Your task to perform on an android device: See recent photos Image 0: 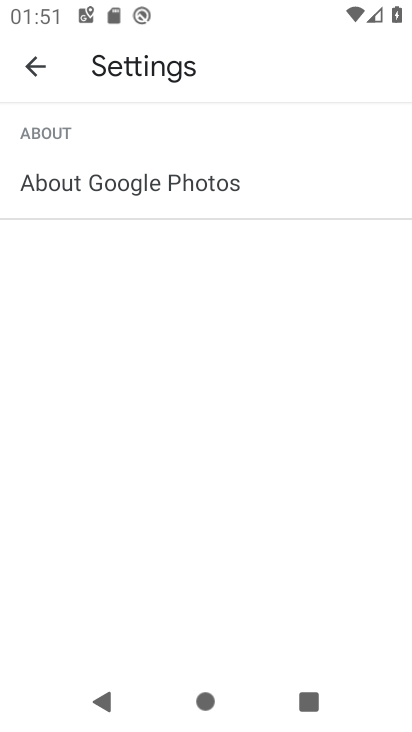
Step 0: press home button
Your task to perform on an android device: See recent photos Image 1: 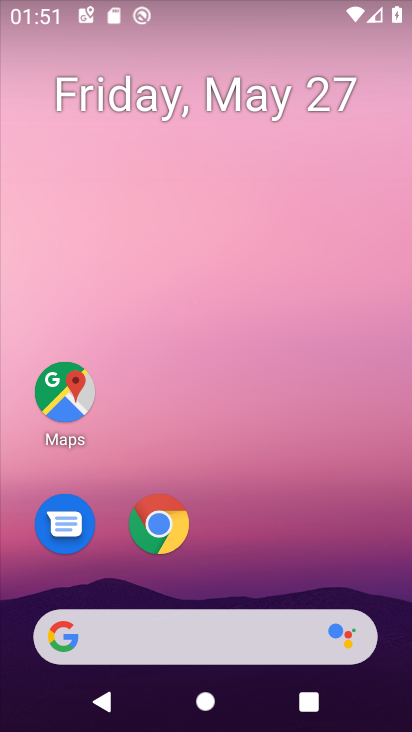
Step 1: drag from (235, 553) to (247, 31)
Your task to perform on an android device: See recent photos Image 2: 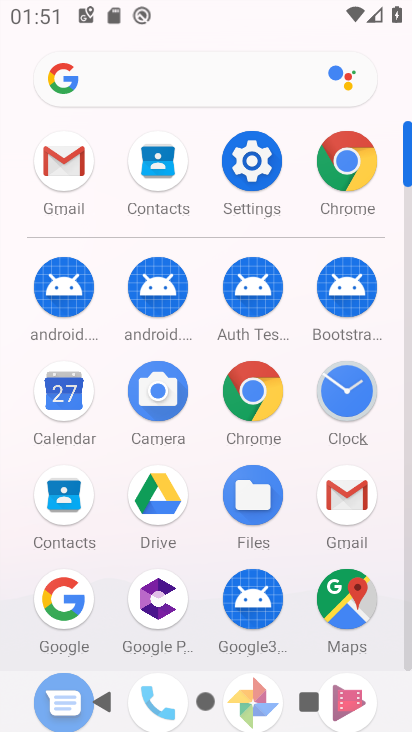
Step 2: drag from (204, 432) to (235, 141)
Your task to perform on an android device: See recent photos Image 3: 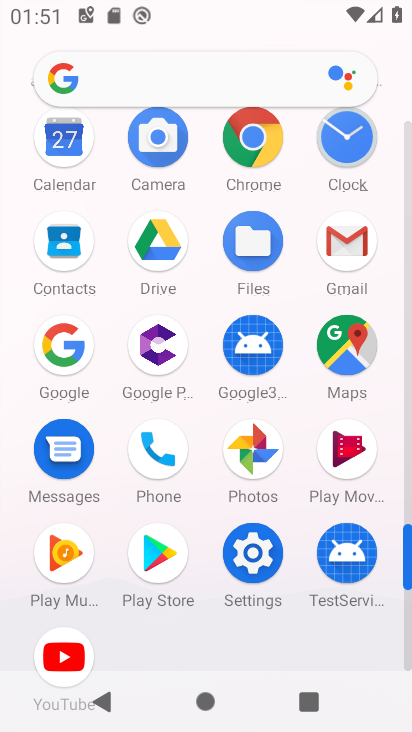
Step 3: click (256, 446)
Your task to perform on an android device: See recent photos Image 4: 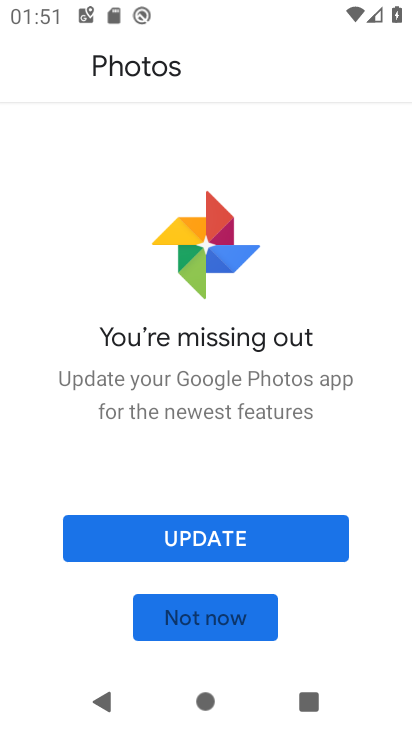
Step 4: click (240, 607)
Your task to perform on an android device: See recent photos Image 5: 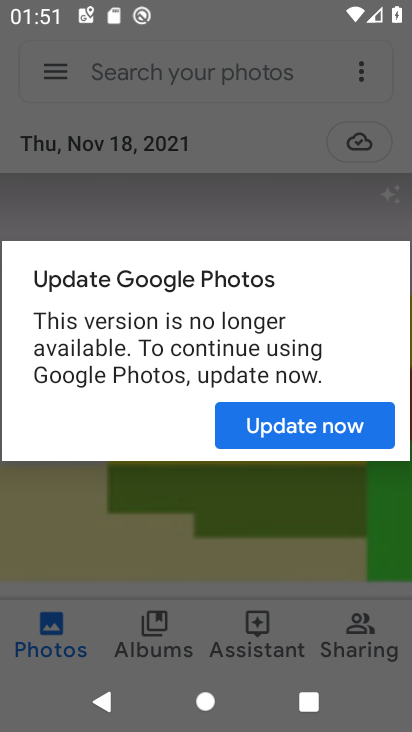
Step 5: click (306, 418)
Your task to perform on an android device: See recent photos Image 6: 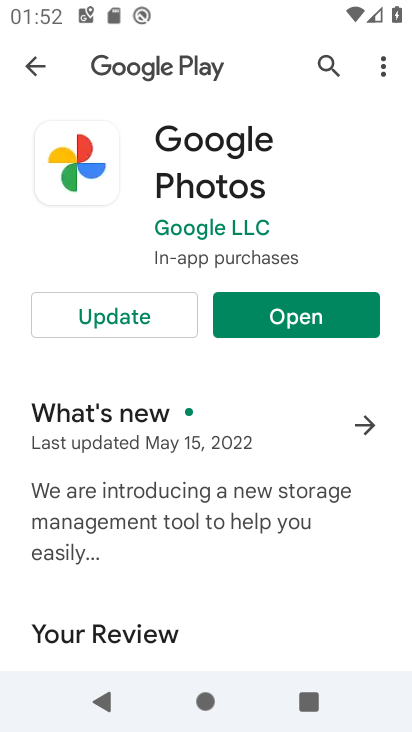
Step 6: click (295, 312)
Your task to perform on an android device: See recent photos Image 7: 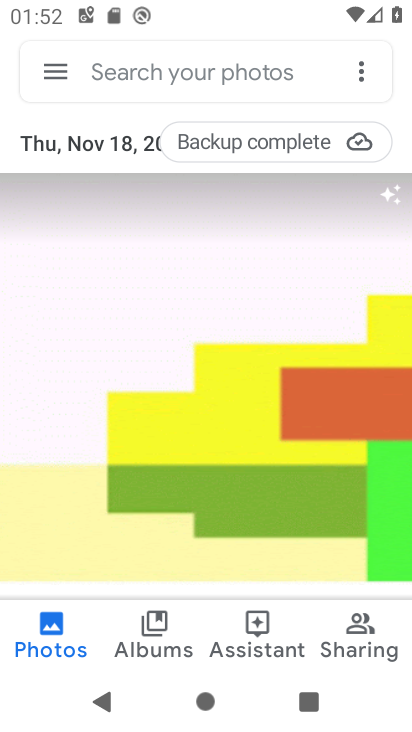
Step 7: task complete